Your task to perform on an android device: View the shopping cart on costco. Add "acer nitro" to the cart on costco, then select checkout. Image 0: 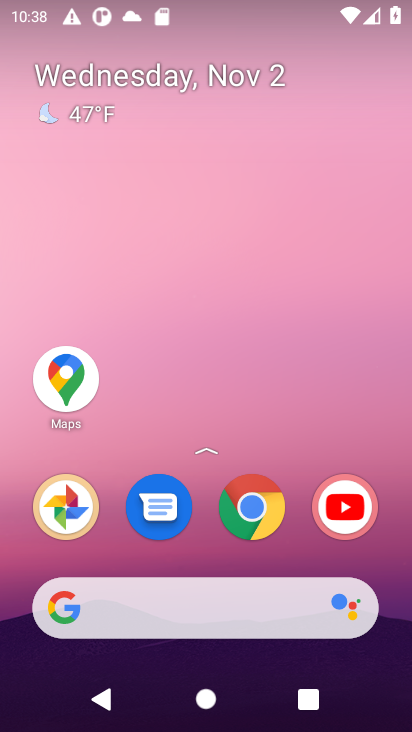
Step 0: task complete